Your task to perform on an android device: open chrome and create a bookmark for the current page Image 0: 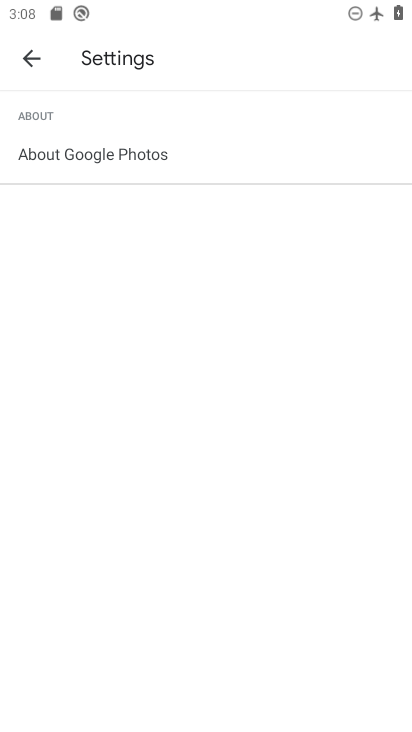
Step 0: press home button
Your task to perform on an android device: open chrome and create a bookmark for the current page Image 1: 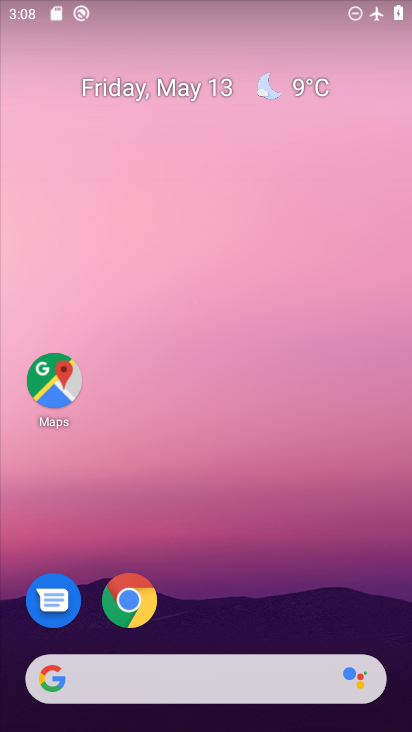
Step 1: drag from (195, 522) to (160, 254)
Your task to perform on an android device: open chrome and create a bookmark for the current page Image 2: 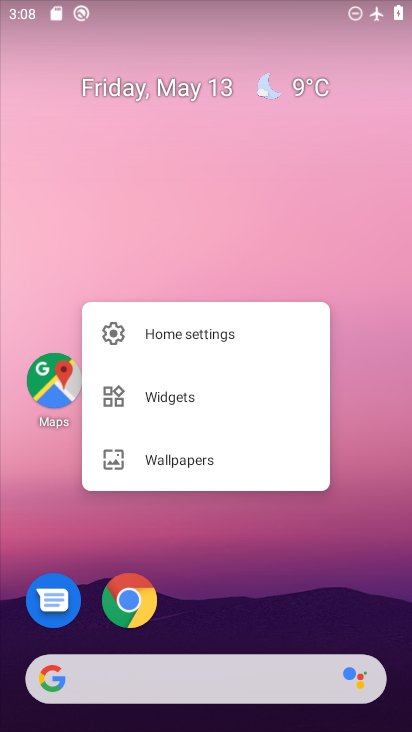
Step 2: drag from (212, 576) to (216, 297)
Your task to perform on an android device: open chrome and create a bookmark for the current page Image 3: 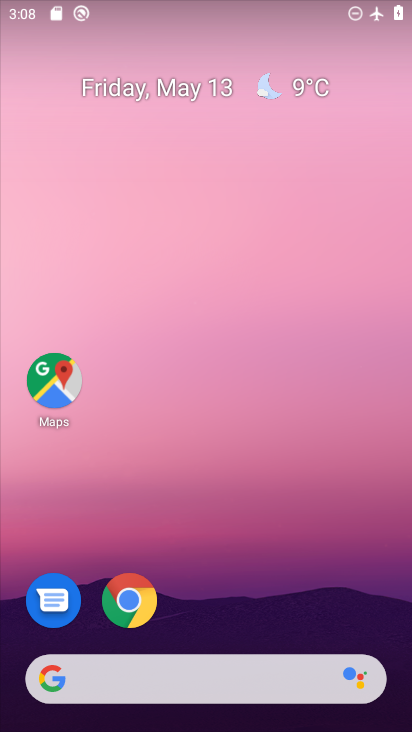
Step 3: drag from (224, 554) to (223, 390)
Your task to perform on an android device: open chrome and create a bookmark for the current page Image 4: 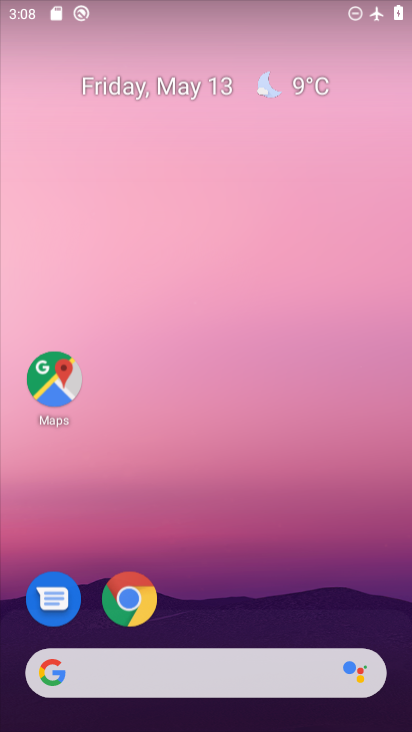
Step 4: click (301, 585)
Your task to perform on an android device: open chrome and create a bookmark for the current page Image 5: 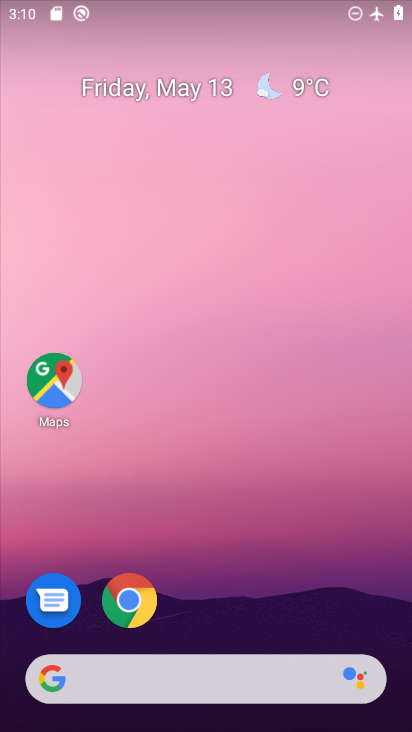
Step 5: drag from (254, 652) to (272, 73)
Your task to perform on an android device: open chrome and create a bookmark for the current page Image 6: 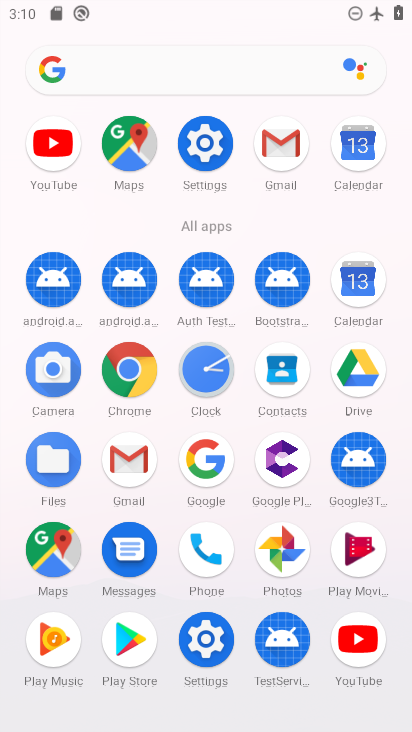
Step 6: click (112, 369)
Your task to perform on an android device: open chrome and create a bookmark for the current page Image 7: 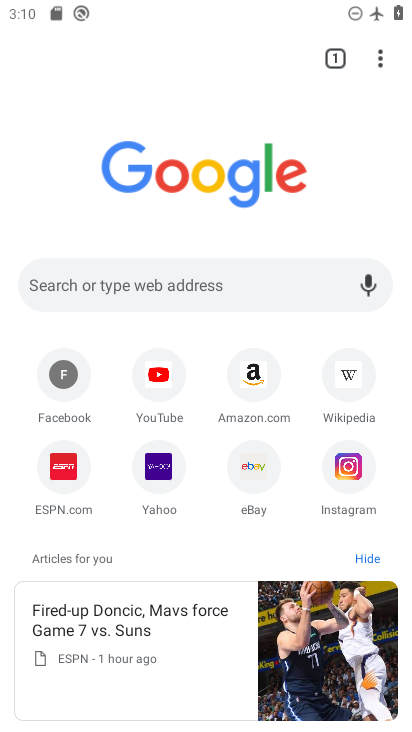
Step 7: click (380, 62)
Your task to perform on an android device: open chrome and create a bookmark for the current page Image 8: 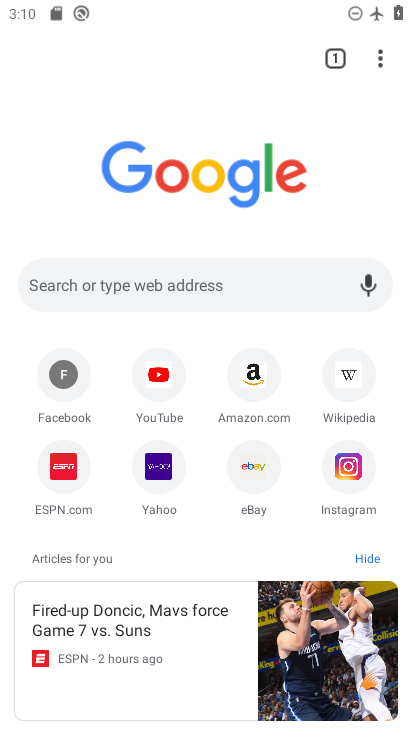
Step 8: click (380, 57)
Your task to perform on an android device: open chrome and create a bookmark for the current page Image 9: 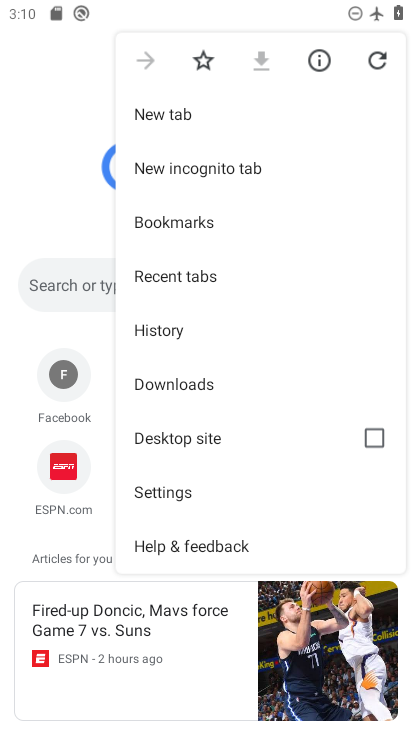
Step 9: click (204, 60)
Your task to perform on an android device: open chrome and create a bookmark for the current page Image 10: 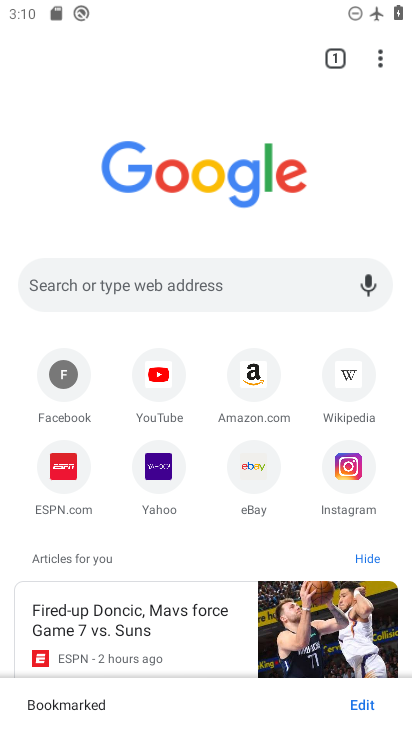
Step 10: task complete